Your task to perform on an android device: Go to Reddit.com Image 0: 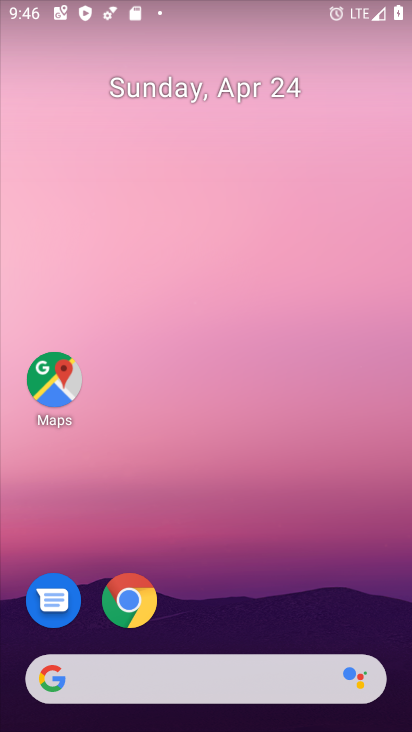
Step 0: click (132, 595)
Your task to perform on an android device: Go to Reddit.com Image 1: 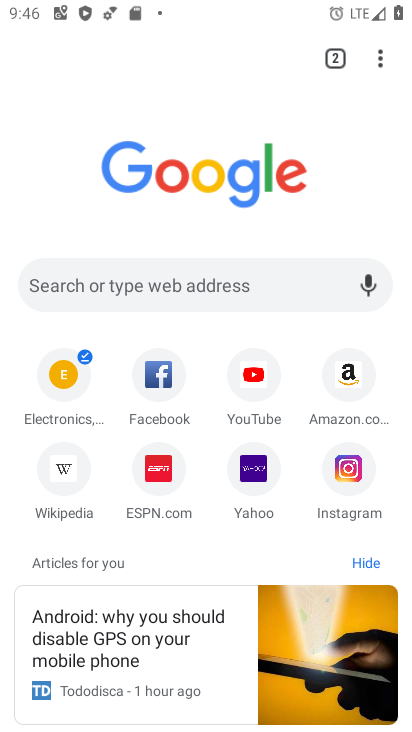
Step 1: click (169, 291)
Your task to perform on an android device: Go to Reddit.com Image 2: 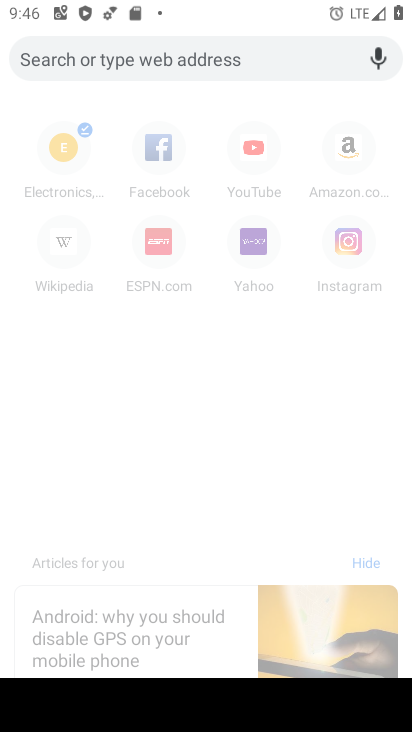
Step 2: type "reddit.com"
Your task to perform on an android device: Go to Reddit.com Image 3: 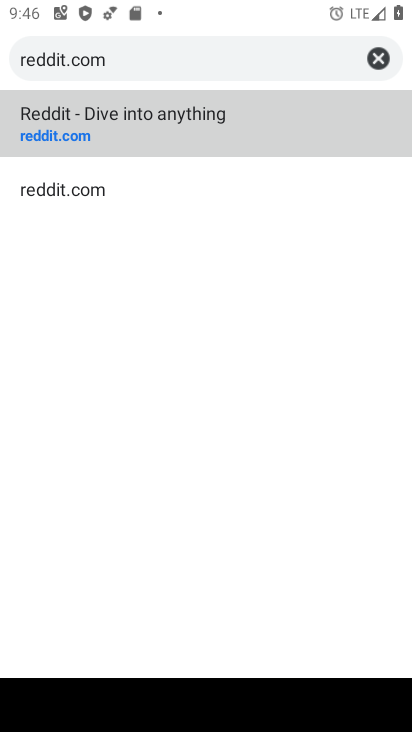
Step 3: click (117, 188)
Your task to perform on an android device: Go to Reddit.com Image 4: 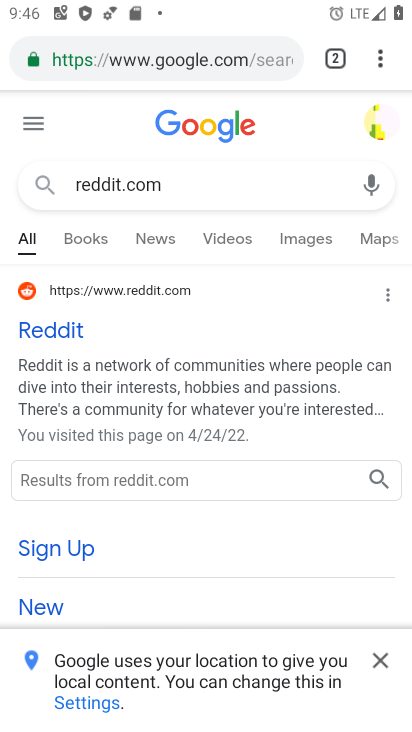
Step 4: click (378, 660)
Your task to perform on an android device: Go to Reddit.com Image 5: 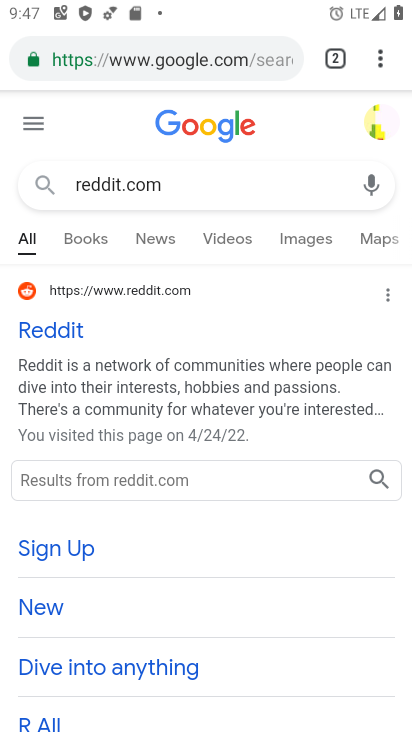
Step 5: task complete